Your task to perform on an android device: delete browsing data in the chrome app Image 0: 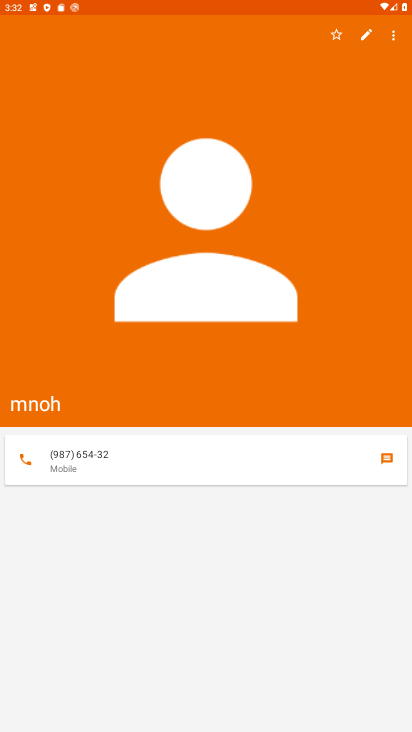
Step 0: press home button
Your task to perform on an android device: delete browsing data in the chrome app Image 1: 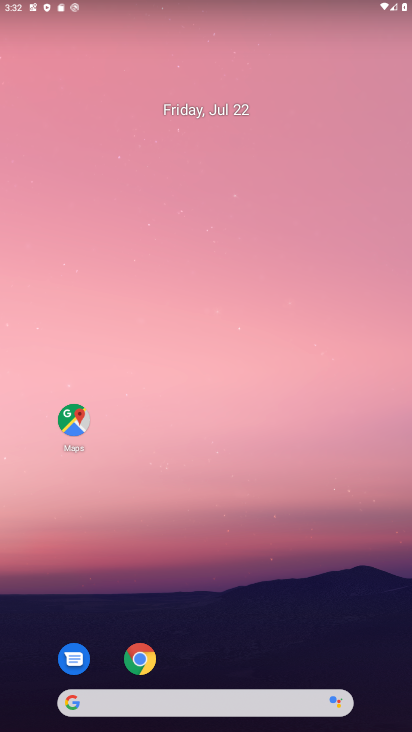
Step 1: click (133, 659)
Your task to perform on an android device: delete browsing data in the chrome app Image 2: 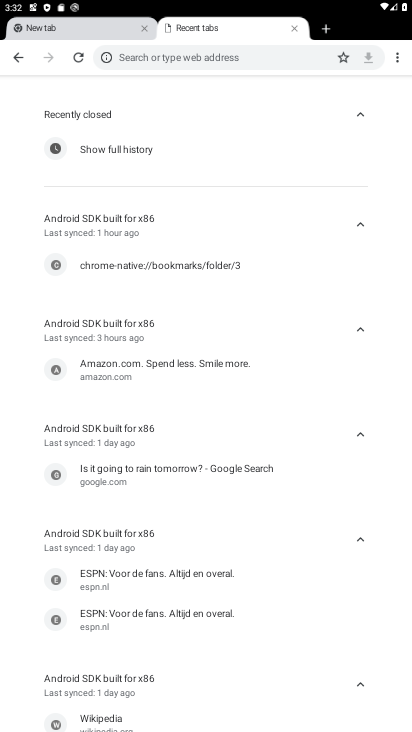
Step 2: click (401, 67)
Your task to perform on an android device: delete browsing data in the chrome app Image 3: 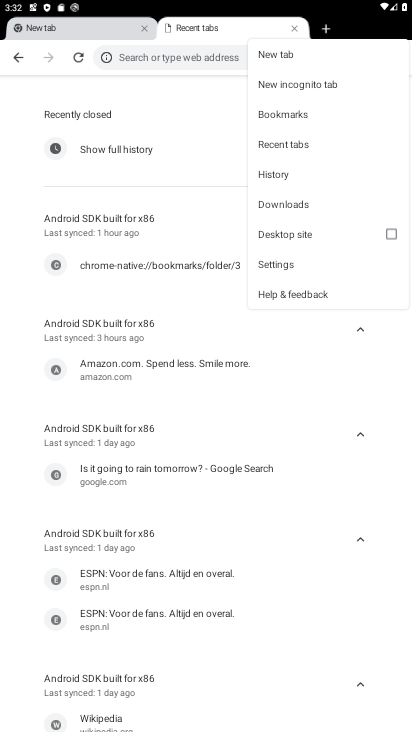
Step 3: click (265, 178)
Your task to perform on an android device: delete browsing data in the chrome app Image 4: 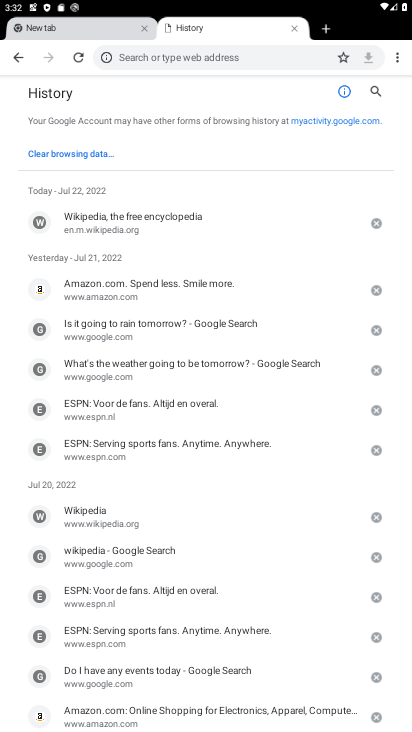
Step 4: click (76, 150)
Your task to perform on an android device: delete browsing data in the chrome app Image 5: 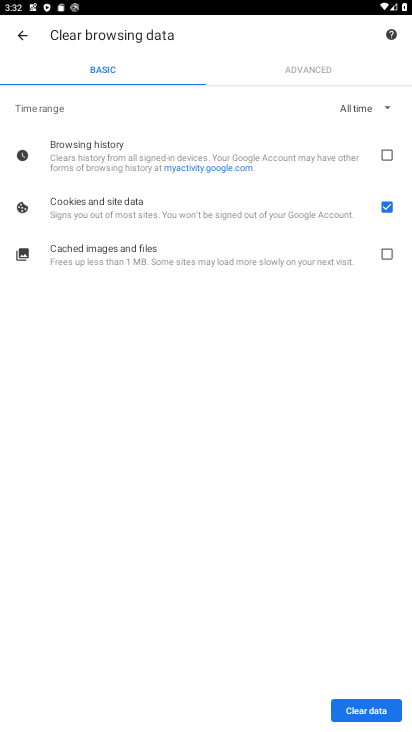
Step 5: click (152, 163)
Your task to perform on an android device: delete browsing data in the chrome app Image 6: 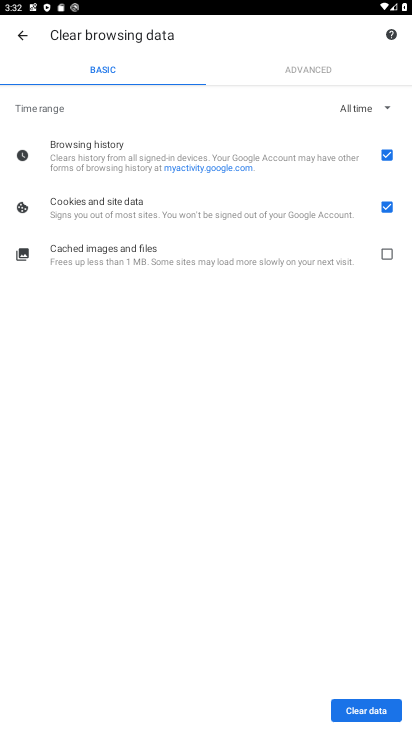
Step 6: click (382, 213)
Your task to perform on an android device: delete browsing data in the chrome app Image 7: 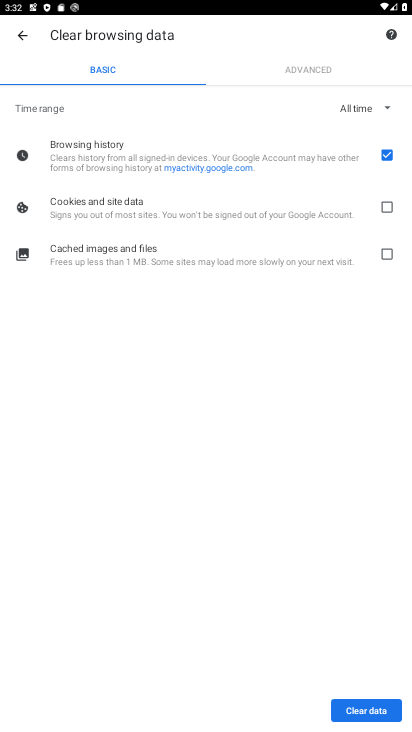
Step 7: click (355, 712)
Your task to perform on an android device: delete browsing data in the chrome app Image 8: 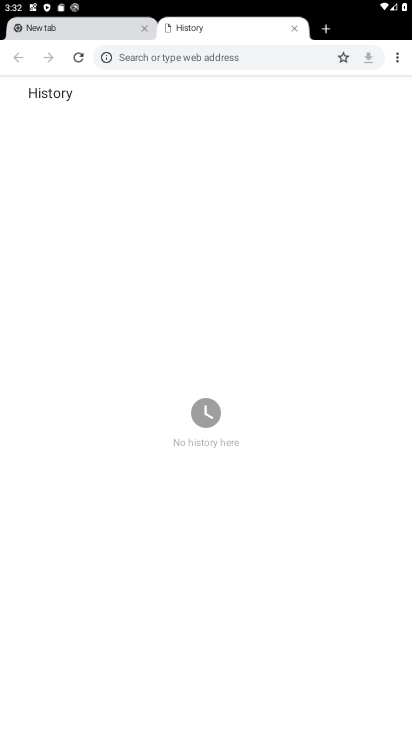
Step 8: task complete